Your task to perform on an android device: Is it going to rain tomorrow? Image 0: 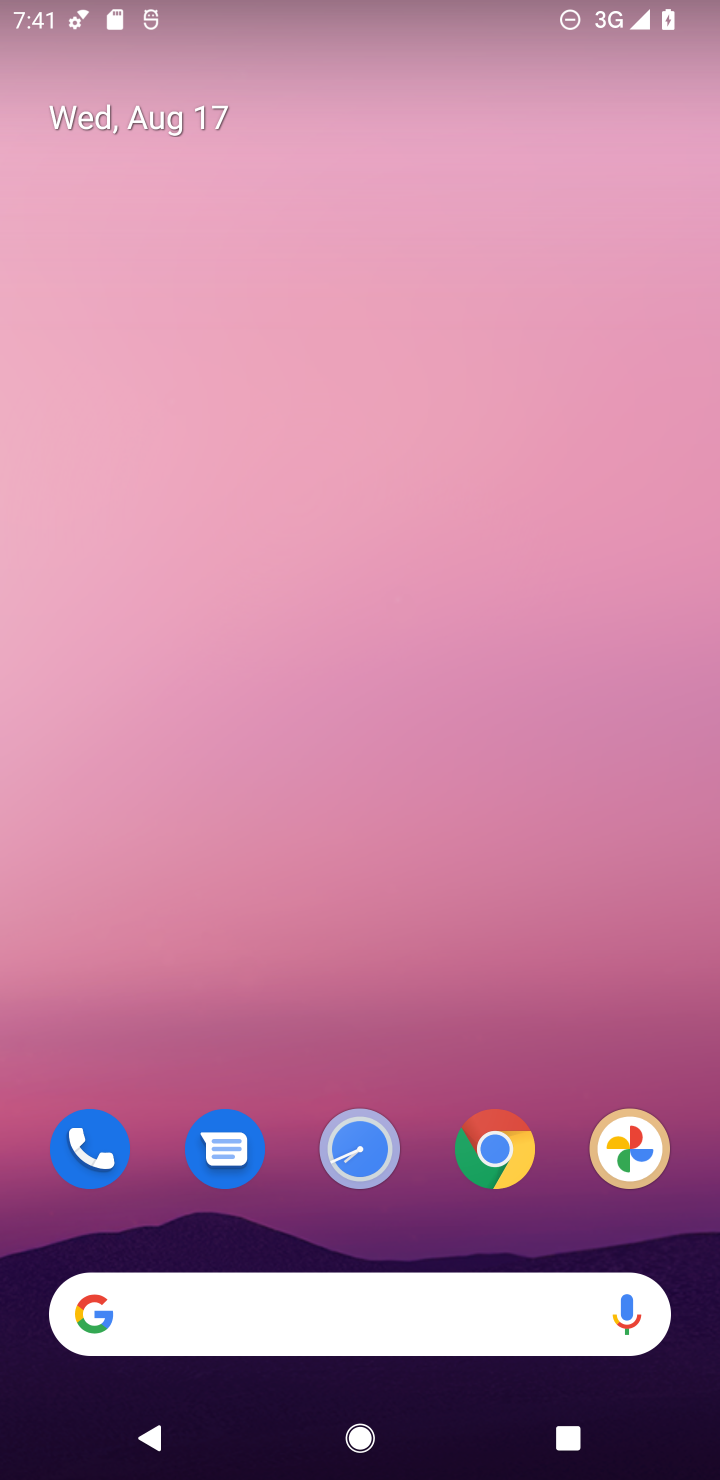
Step 0: press home button
Your task to perform on an android device: Is it going to rain tomorrow? Image 1: 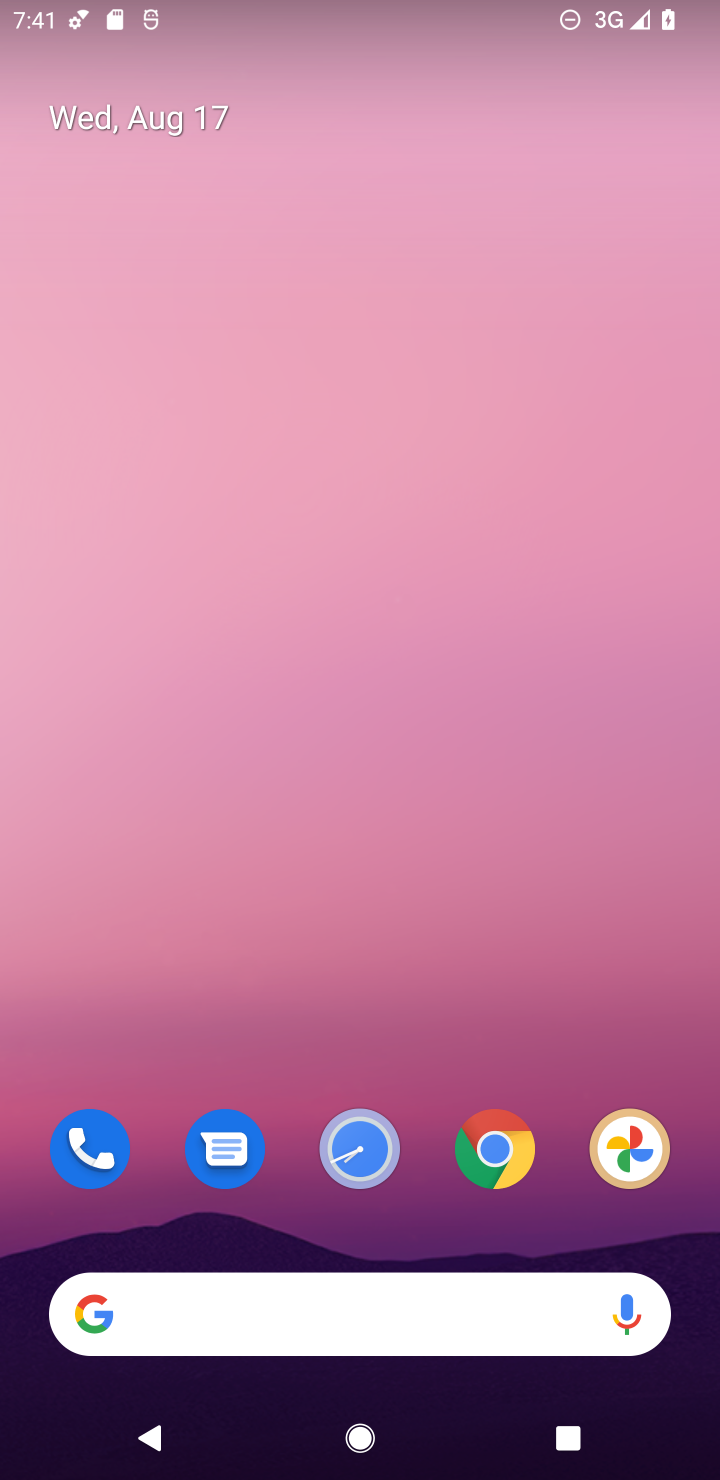
Step 1: click (93, 1293)
Your task to perform on an android device: Is it going to rain tomorrow? Image 2: 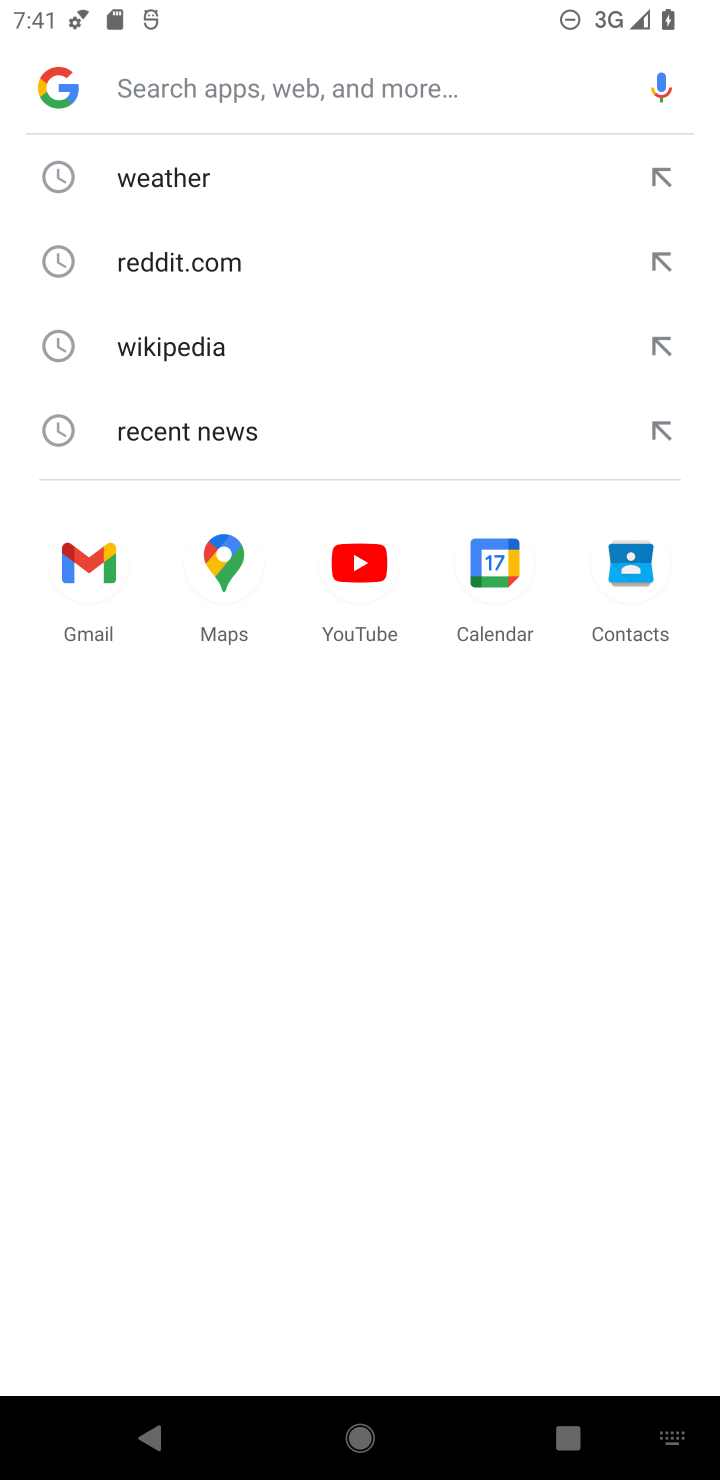
Step 2: click (159, 172)
Your task to perform on an android device: Is it going to rain tomorrow? Image 3: 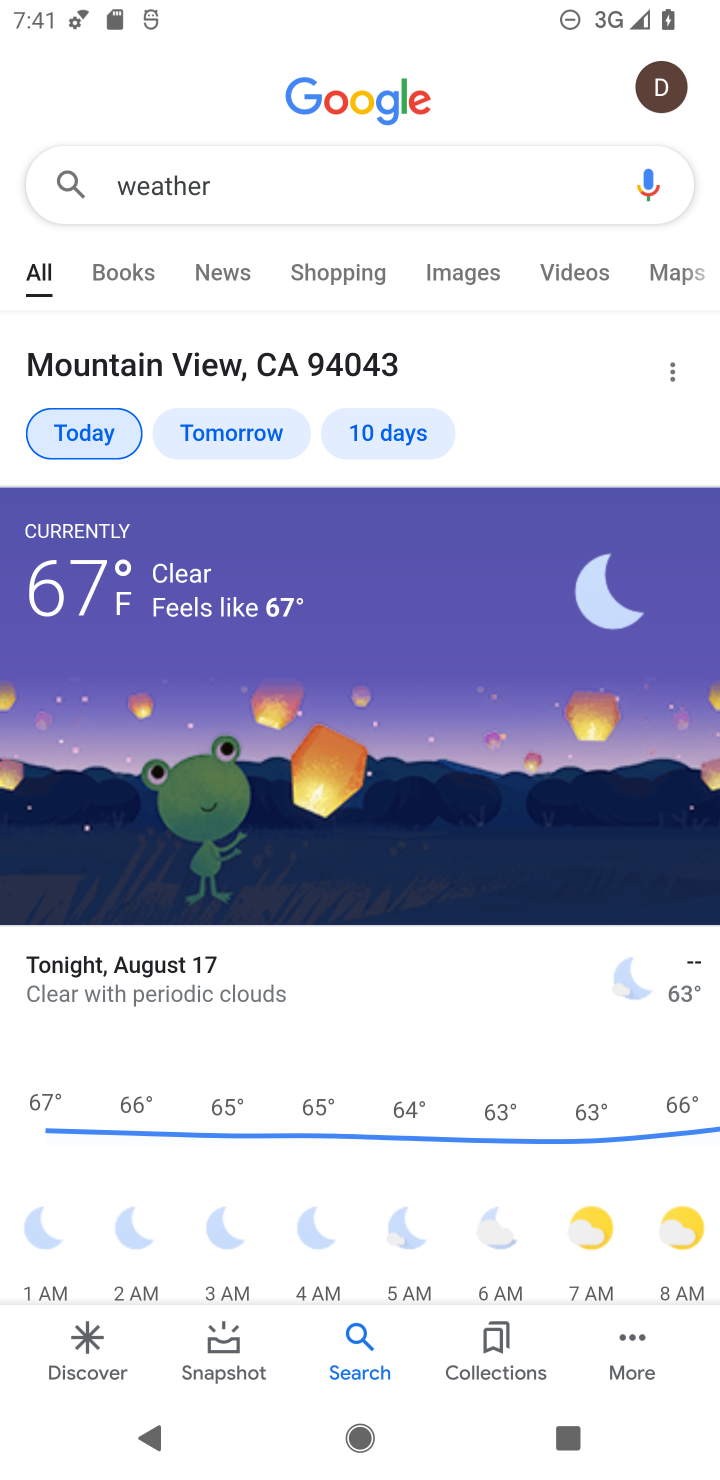
Step 3: click (220, 425)
Your task to perform on an android device: Is it going to rain tomorrow? Image 4: 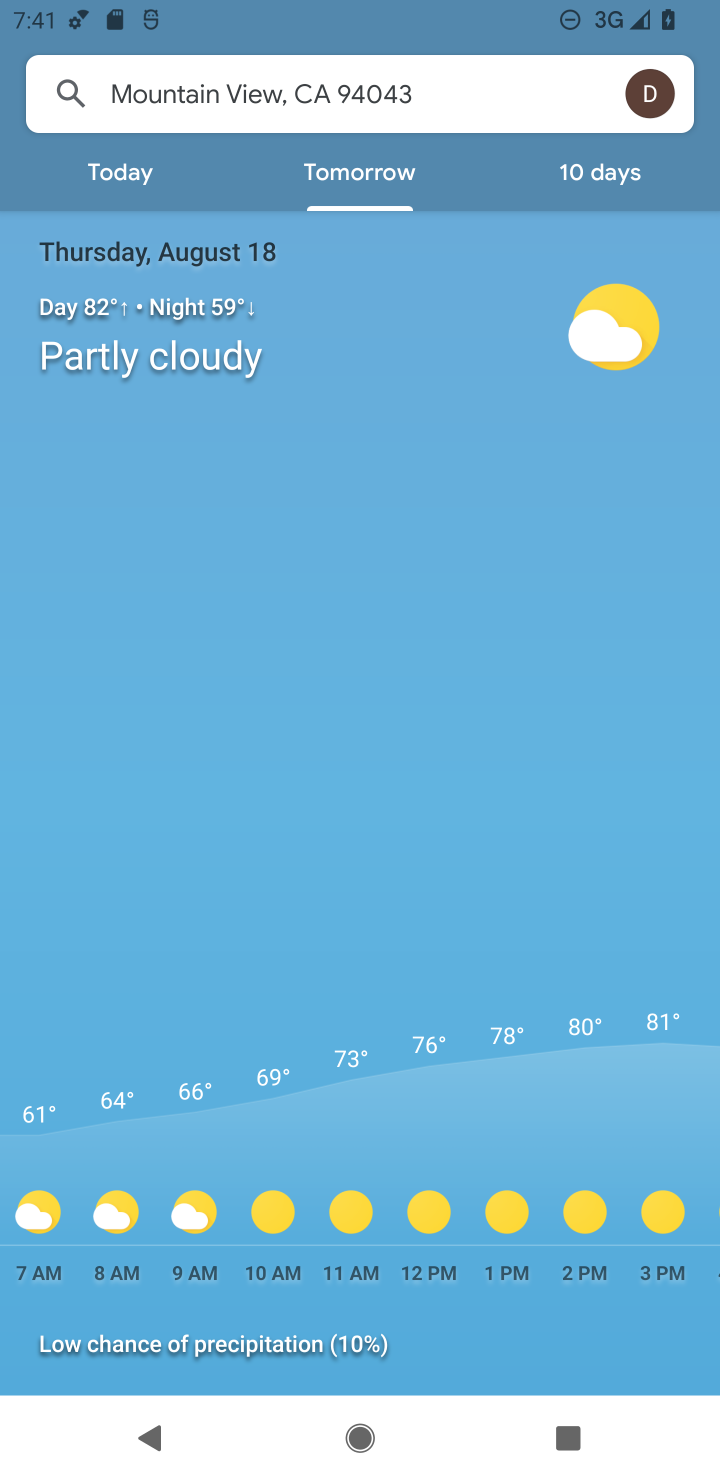
Step 4: task complete